Your task to perform on an android device: clear history in the chrome app Image 0: 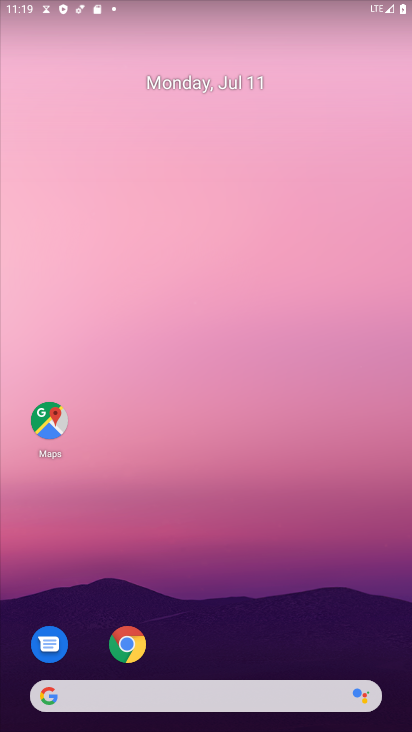
Step 0: click (133, 646)
Your task to perform on an android device: clear history in the chrome app Image 1: 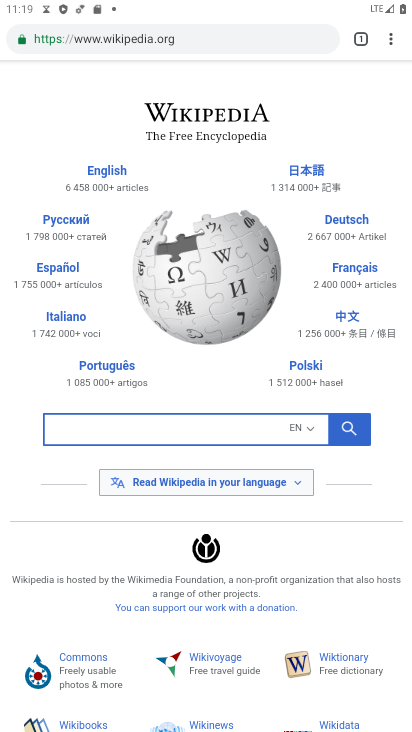
Step 1: click (374, 237)
Your task to perform on an android device: clear history in the chrome app Image 2: 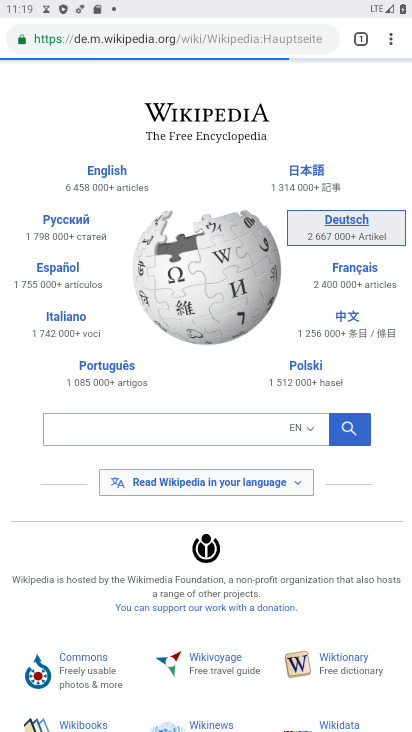
Step 2: click (386, 31)
Your task to perform on an android device: clear history in the chrome app Image 3: 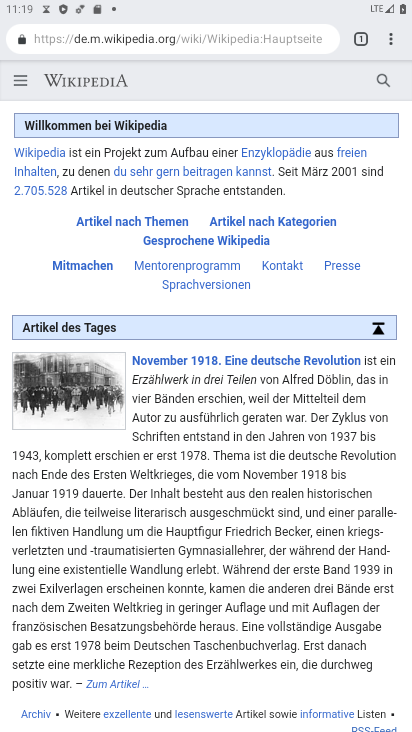
Step 3: click (386, 31)
Your task to perform on an android device: clear history in the chrome app Image 4: 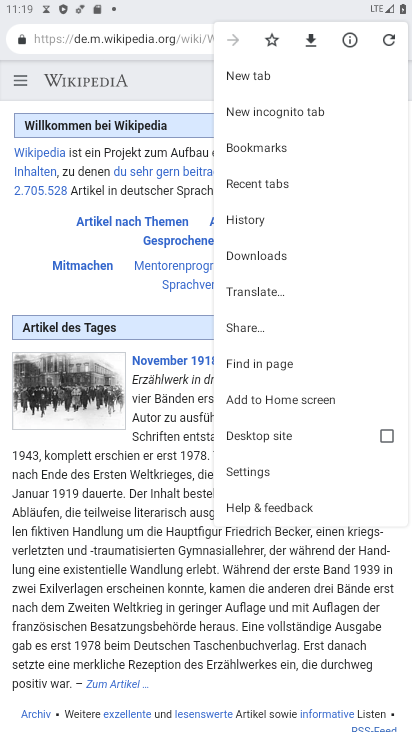
Step 4: click (253, 223)
Your task to perform on an android device: clear history in the chrome app Image 5: 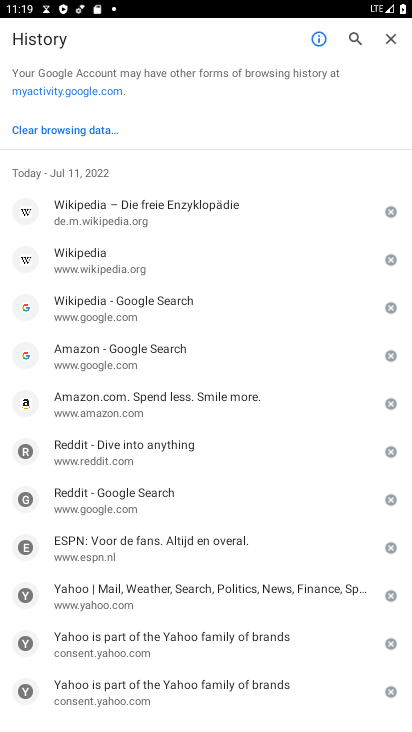
Step 5: drag from (319, 675) to (274, 330)
Your task to perform on an android device: clear history in the chrome app Image 6: 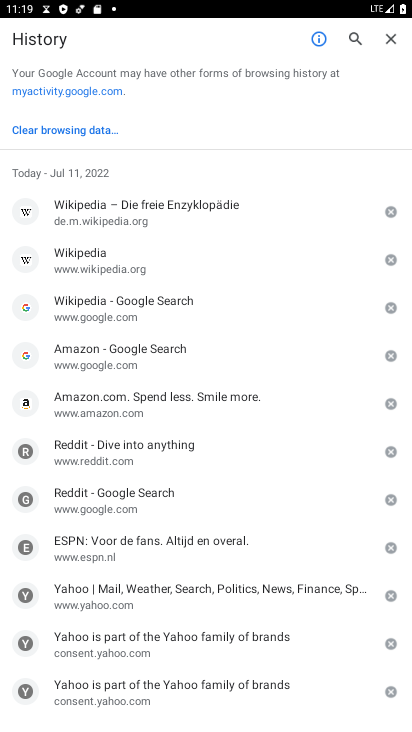
Step 6: click (44, 127)
Your task to perform on an android device: clear history in the chrome app Image 7: 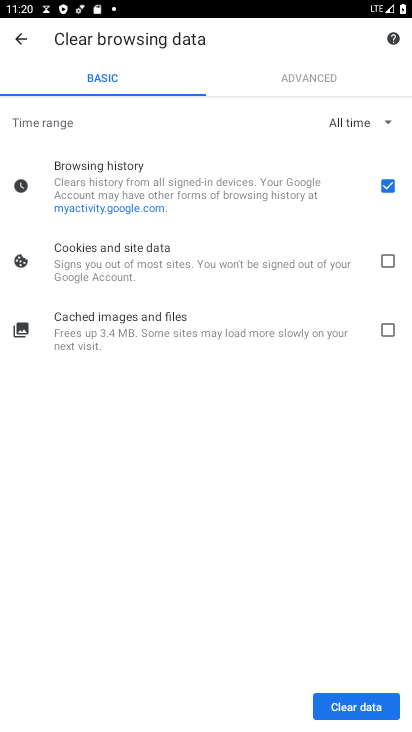
Step 7: click (354, 694)
Your task to perform on an android device: clear history in the chrome app Image 8: 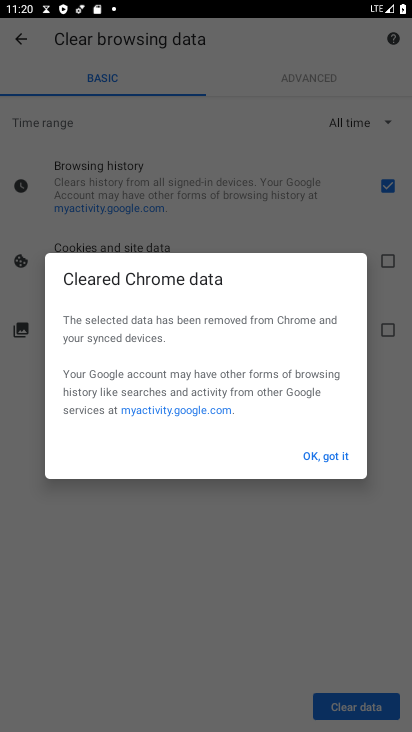
Step 8: click (320, 445)
Your task to perform on an android device: clear history in the chrome app Image 9: 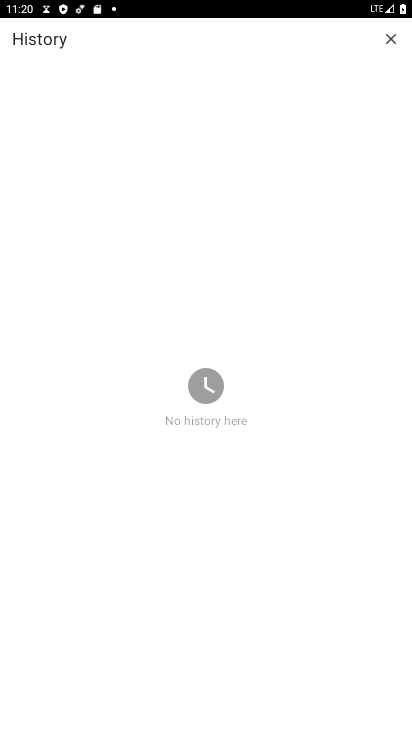
Step 9: task complete